Your task to perform on an android device: Open battery settings Image 0: 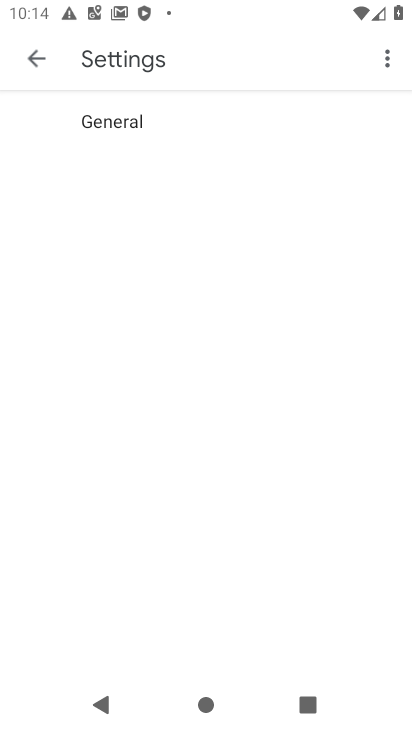
Step 0: press home button
Your task to perform on an android device: Open battery settings Image 1: 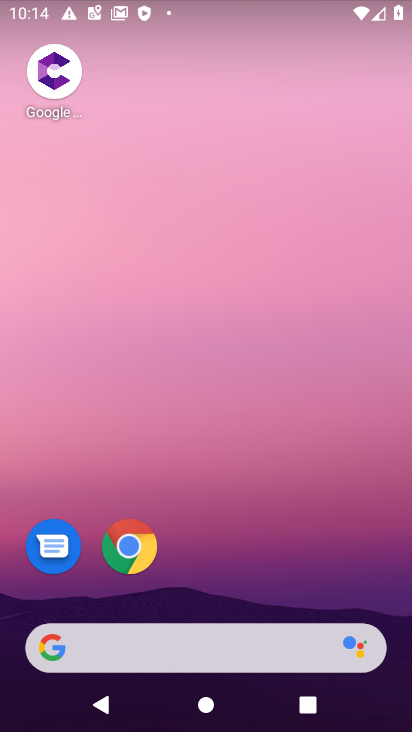
Step 1: drag from (243, 498) to (227, 36)
Your task to perform on an android device: Open battery settings Image 2: 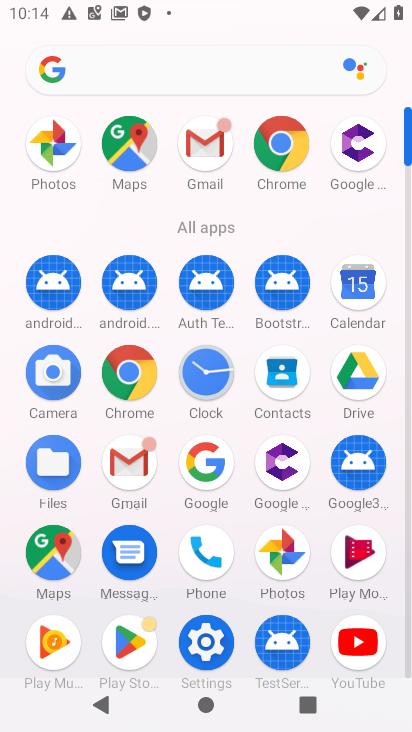
Step 2: click (203, 640)
Your task to perform on an android device: Open battery settings Image 3: 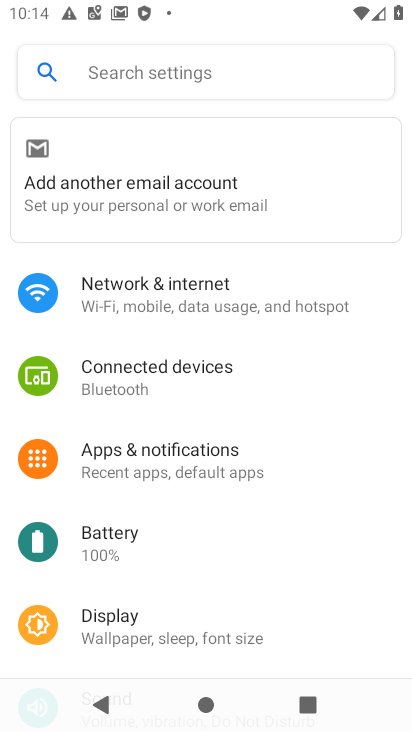
Step 3: click (96, 533)
Your task to perform on an android device: Open battery settings Image 4: 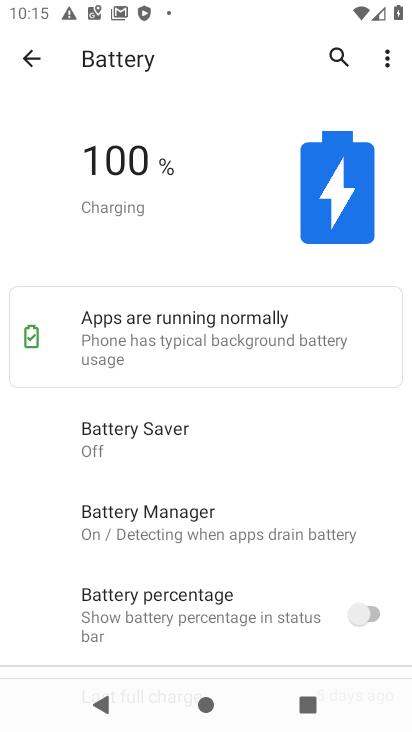
Step 4: task complete